Your task to perform on an android device: add a label to a message in the gmail app Image 0: 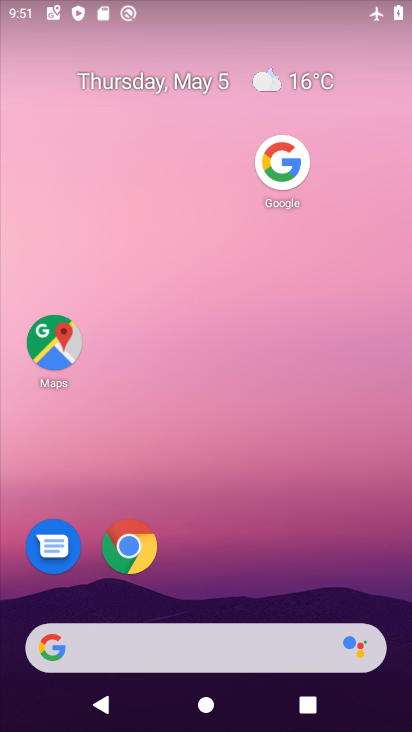
Step 0: drag from (193, 661) to (272, 173)
Your task to perform on an android device: add a label to a message in the gmail app Image 1: 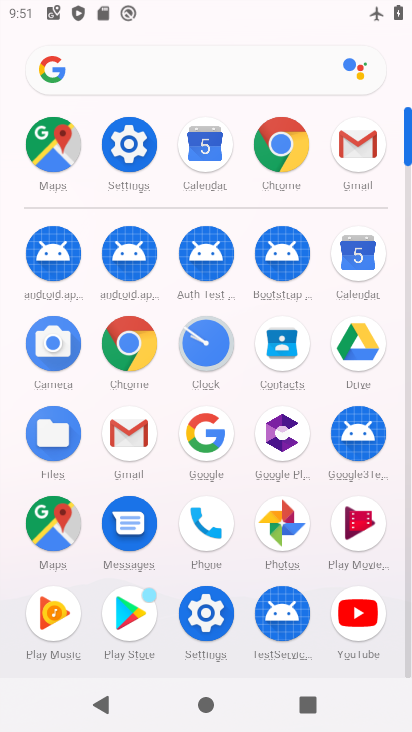
Step 1: click (355, 147)
Your task to perform on an android device: add a label to a message in the gmail app Image 2: 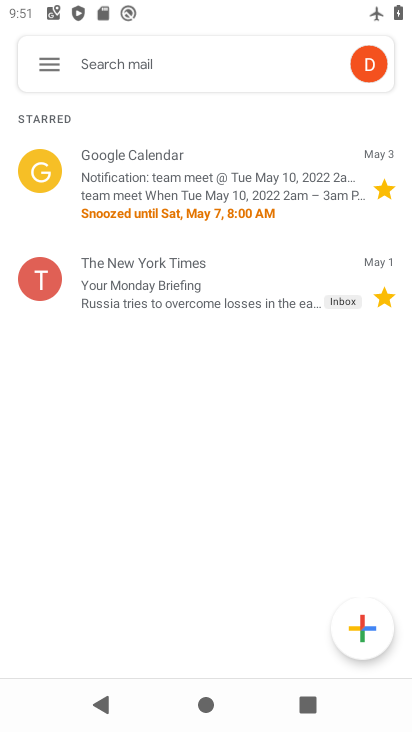
Step 2: click (176, 177)
Your task to perform on an android device: add a label to a message in the gmail app Image 3: 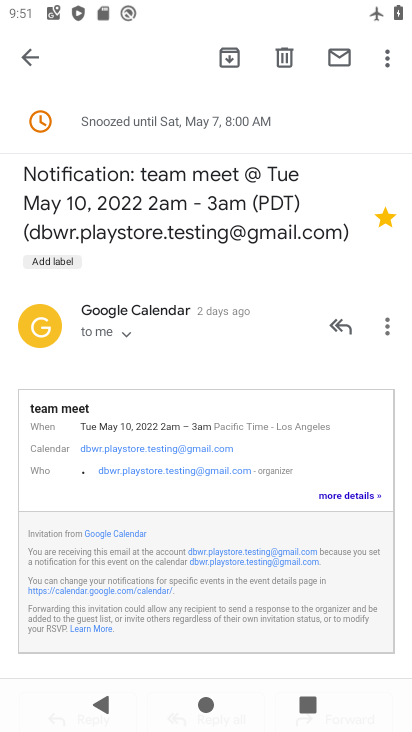
Step 3: click (68, 262)
Your task to perform on an android device: add a label to a message in the gmail app Image 4: 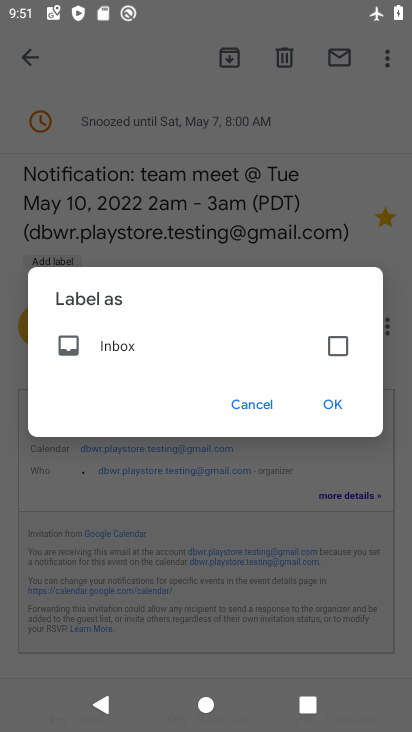
Step 4: click (340, 344)
Your task to perform on an android device: add a label to a message in the gmail app Image 5: 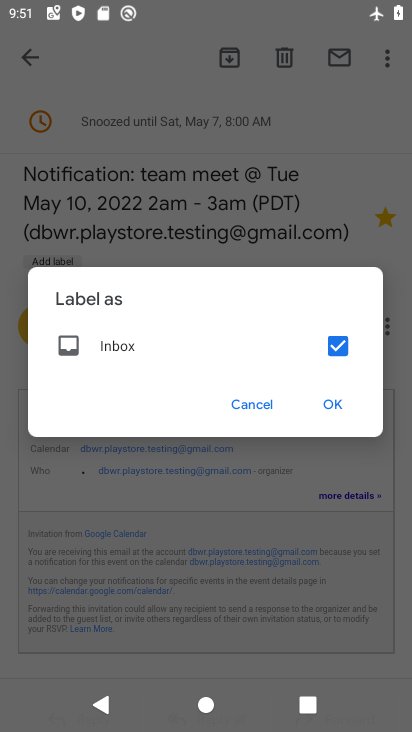
Step 5: click (332, 404)
Your task to perform on an android device: add a label to a message in the gmail app Image 6: 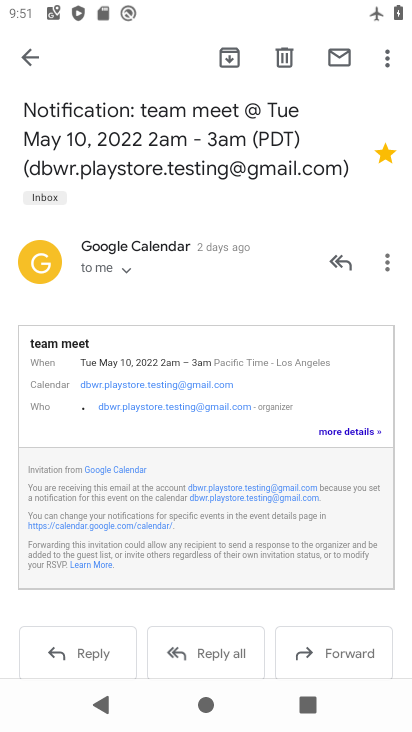
Step 6: task complete